Your task to perform on an android device: Open the web browser Image 0: 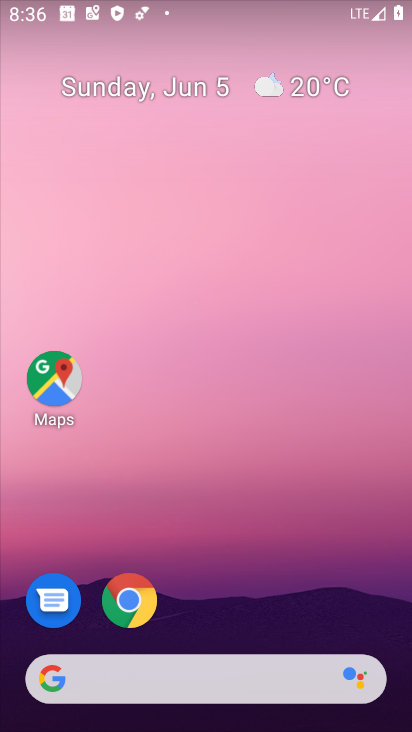
Step 0: click (235, 681)
Your task to perform on an android device: Open the web browser Image 1: 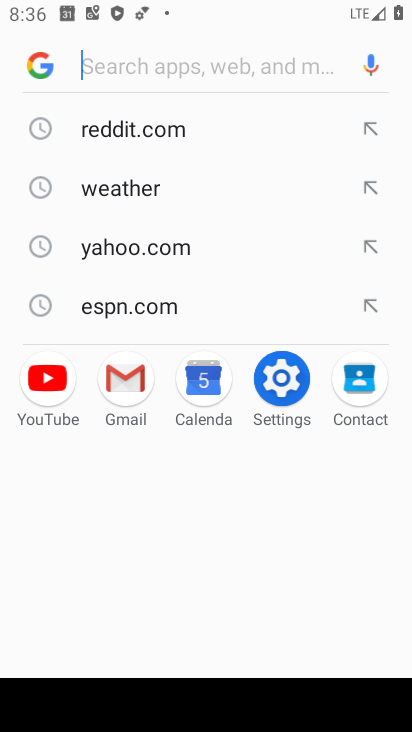
Step 1: task complete